Your task to perform on an android device: all mails in gmail Image 0: 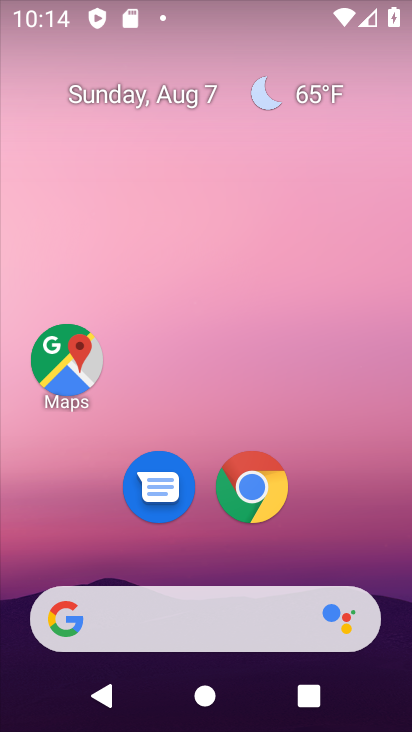
Step 0: drag from (391, 668) to (333, 90)
Your task to perform on an android device: all mails in gmail Image 1: 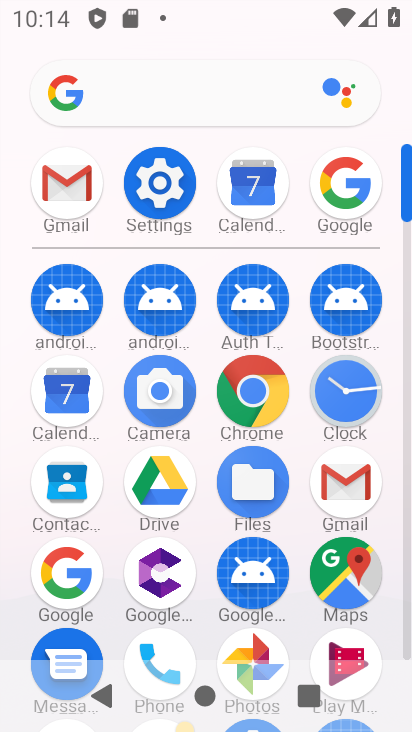
Step 1: click (350, 484)
Your task to perform on an android device: all mails in gmail Image 2: 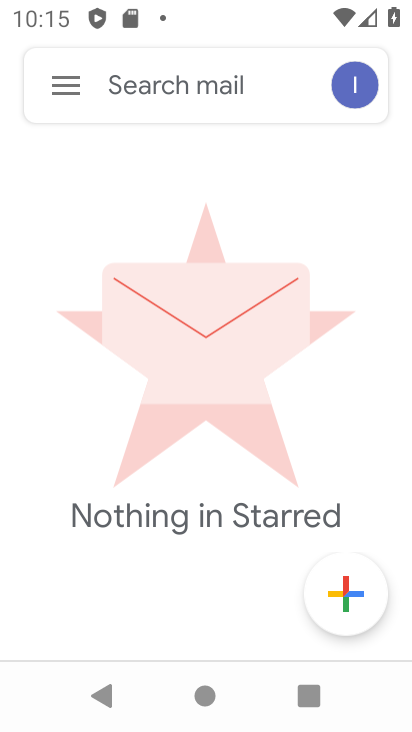
Step 2: click (58, 65)
Your task to perform on an android device: all mails in gmail Image 3: 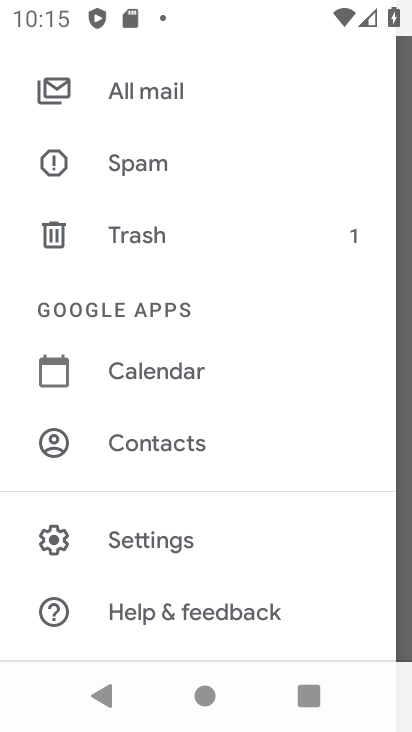
Step 3: click (129, 86)
Your task to perform on an android device: all mails in gmail Image 4: 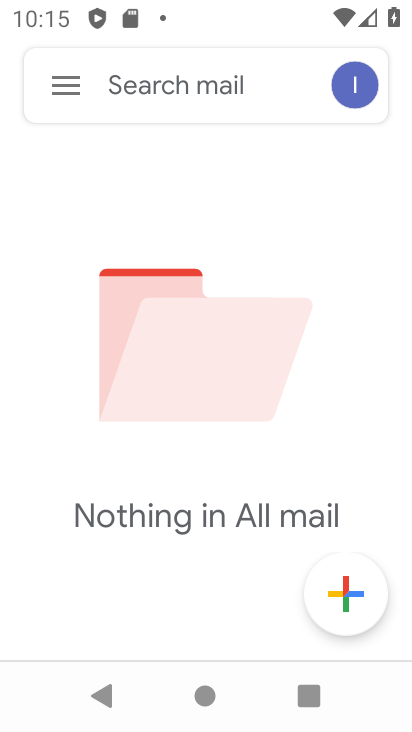
Step 4: task complete